Your task to perform on an android device: Go to Reddit.com Image 0: 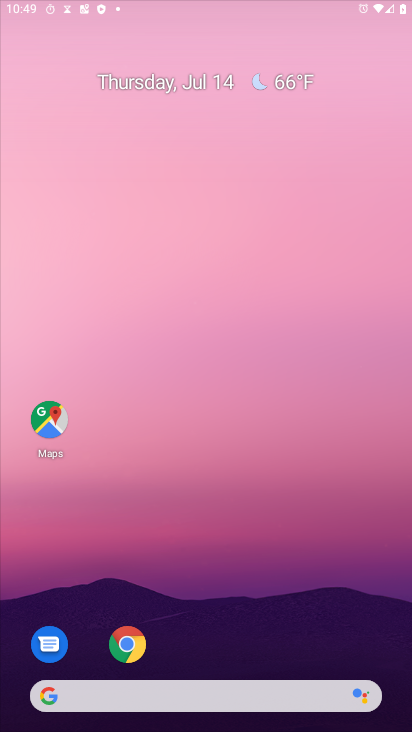
Step 0: drag from (273, 678) to (232, 275)
Your task to perform on an android device: Go to Reddit.com Image 1: 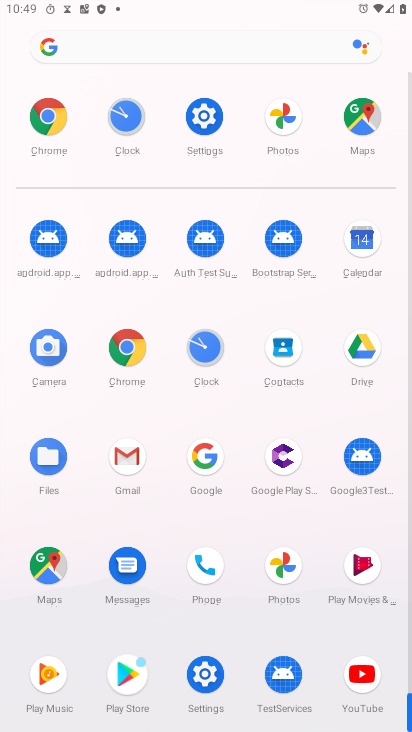
Step 1: click (42, 109)
Your task to perform on an android device: Go to Reddit.com Image 2: 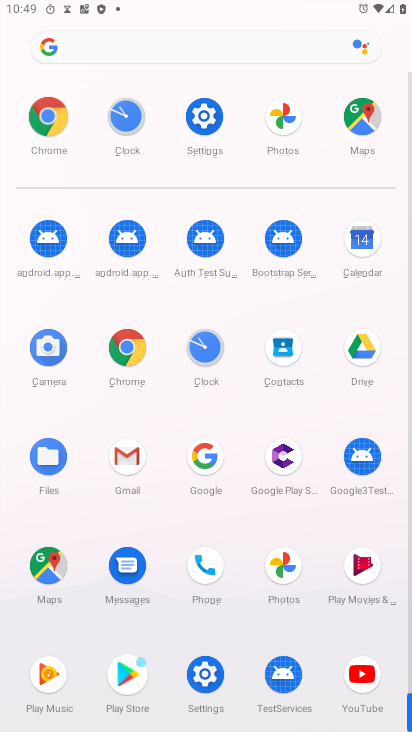
Step 2: click (44, 109)
Your task to perform on an android device: Go to Reddit.com Image 3: 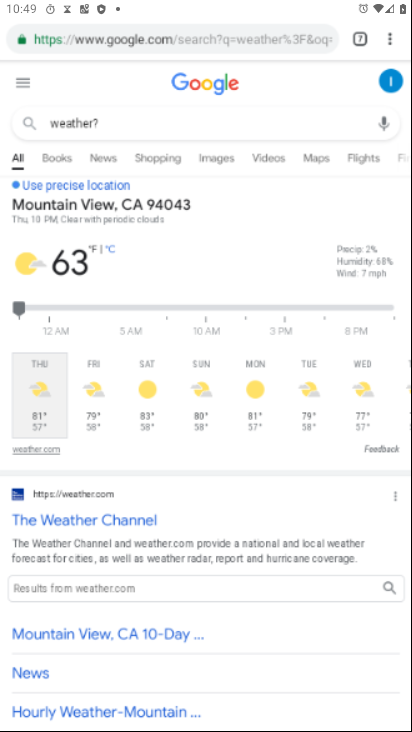
Step 3: click (46, 110)
Your task to perform on an android device: Go to Reddit.com Image 4: 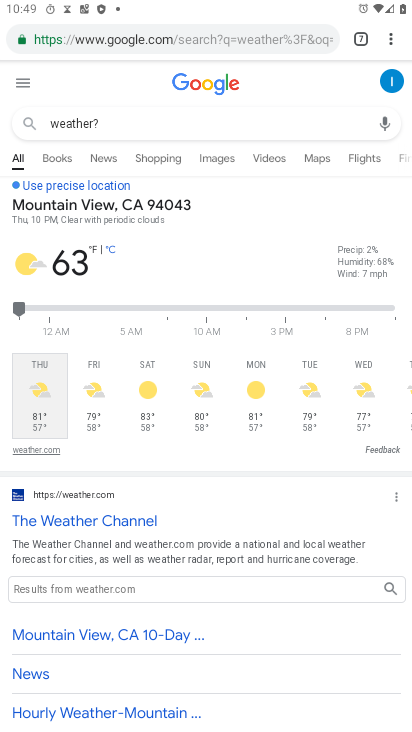
Step 4: press back button
Your task to perform on an android device: Go to Reddit.com Image 5: 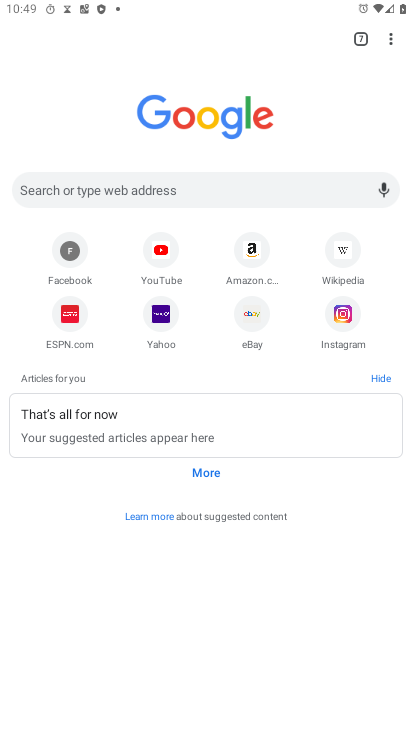
Step 5: click (58, 180)
Your task to perform on an android device: Go to Reddit.com Image 6: 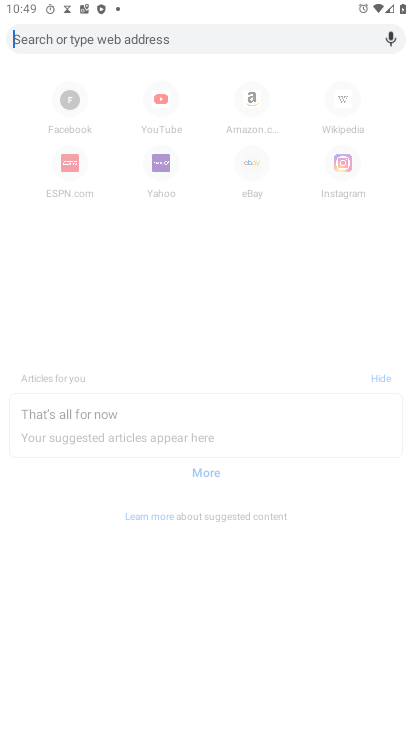
Step 6: click (60, 184)
Your task to perform on an android device: Go to Reddit.com Image 7: 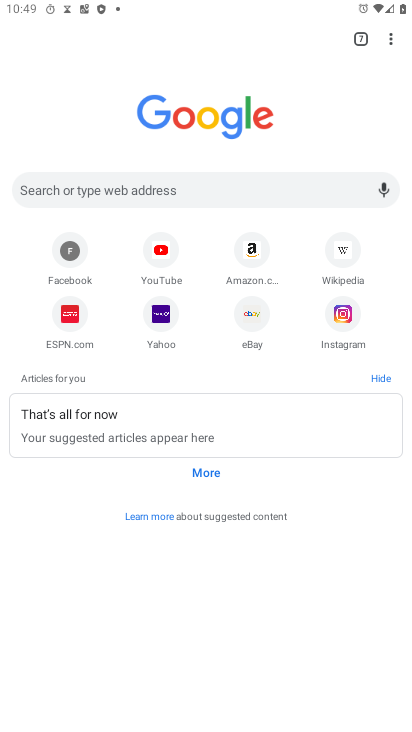
Step 7: click (143, 187)
Your task to perform on an android device: Go to Reddit.com Image 8: 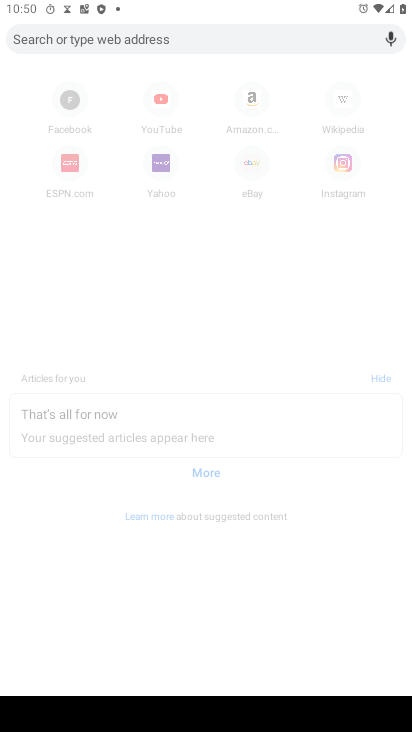
Step 8: type "reddit.com"
Your task to perform on an android device: Go to Reddit.com Image 9: 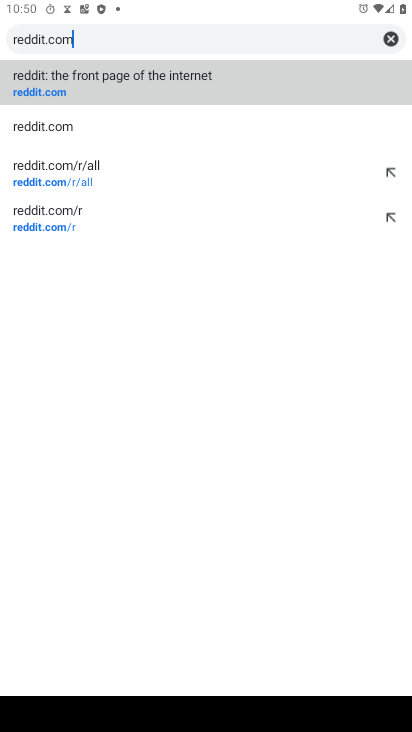
Step 9: click (66, 69)
Your task to perform on an android device: Go to Reddit.com Image 10: 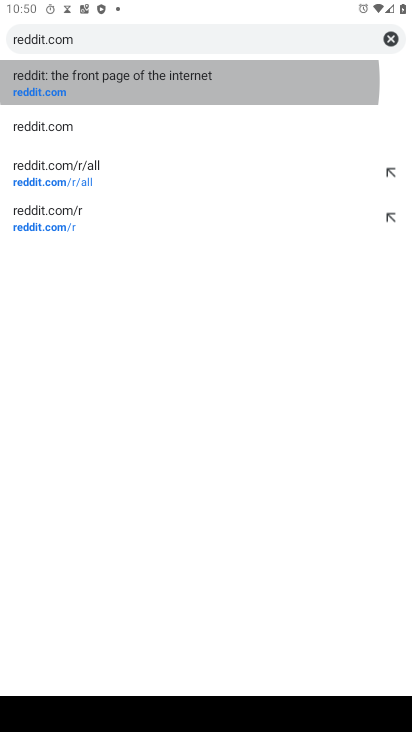
Step 10: click (65, 69)
Your task to perform on an android device: Go to Reddit.com Image 11: 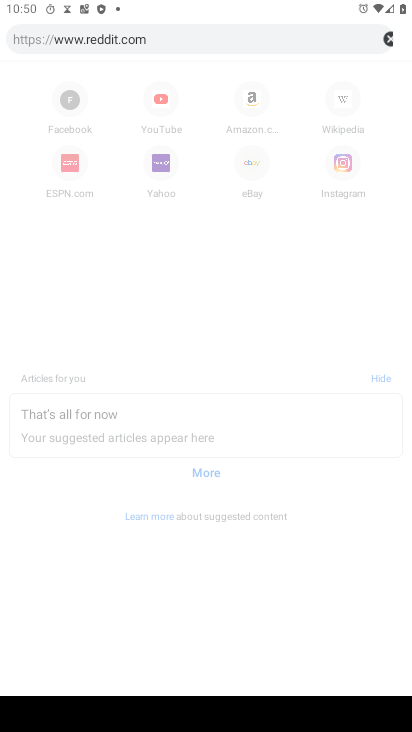
Step 11: click (65, 69)
Your task to perform on an android device: Go to Reddit.com Image 12: 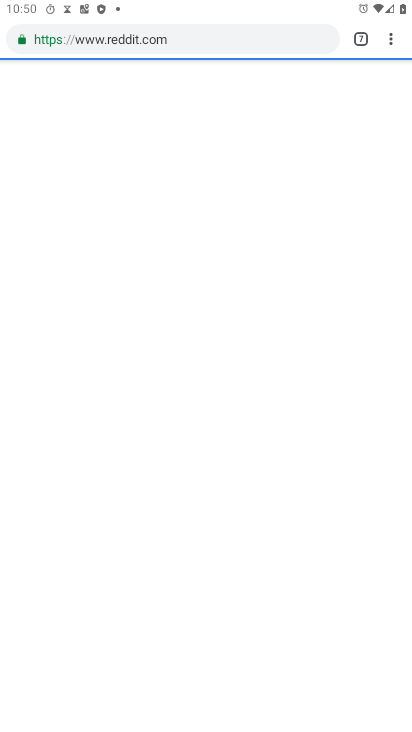
Step 12: task complete